Your task to perform on an android device: Open wifi settings Image 0: 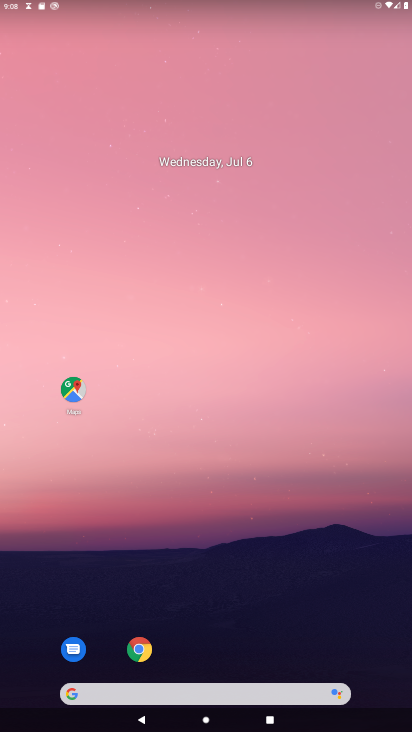
Step 0: click (237, 333)
Your task to perform on an android device: Open wifi settings Image 1: 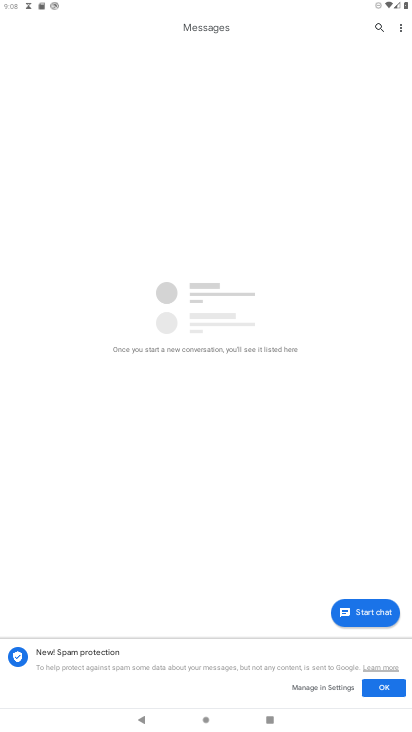
Step 1: drag from (332, 646) to (243, 260)
Your task to perform on an android device: Open wifi settings Image 2: 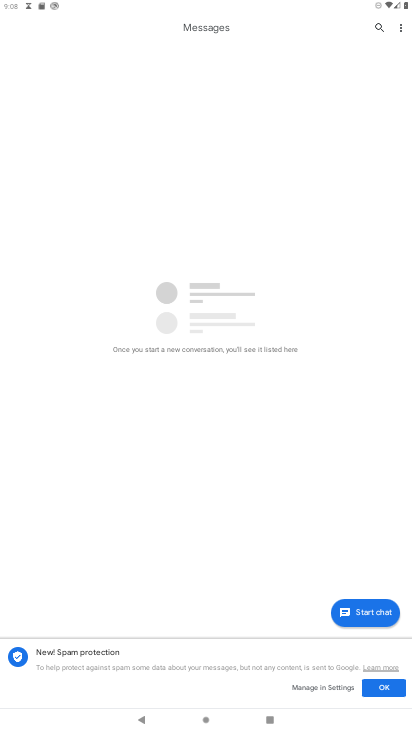
Step 2: press back button
Your task to perform on an android device: Open wifi settings Image 3: 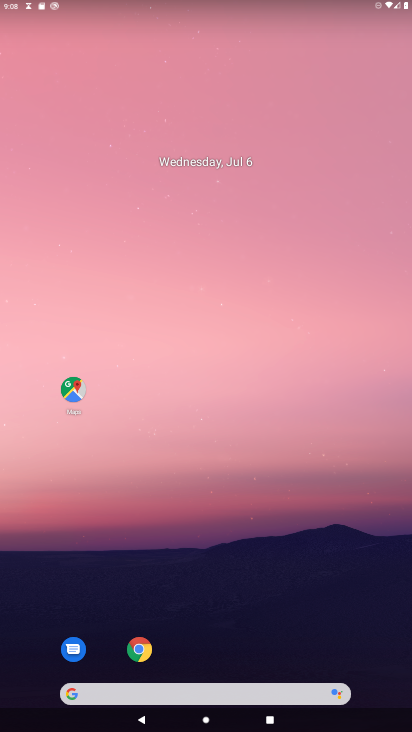
Step 3: drag from (252, 675) to (151, 187)
Your task to perform on an android device: Open wifi settings Image 4: 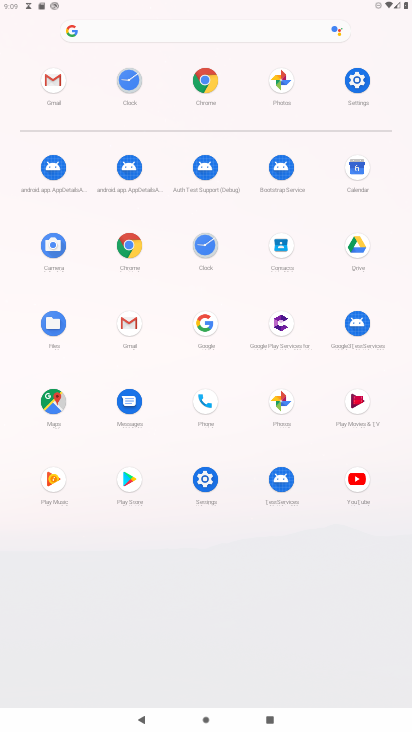
Step 4: click (367, 87)
Your task to perform on an android device: Open wifi settings Image 5: 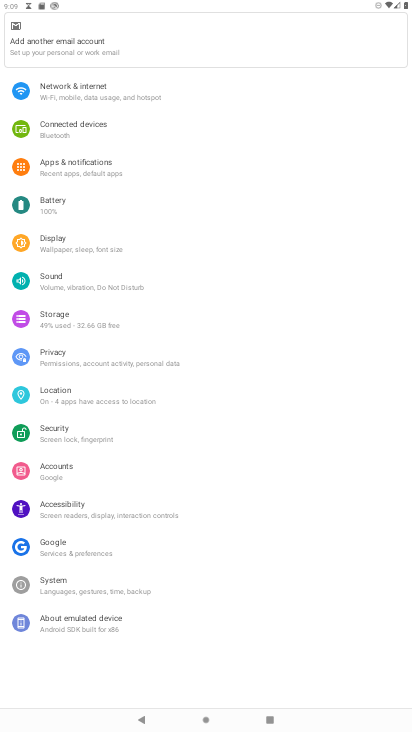
Step 5: click (100, 91)
Your task to perform on an android device: Open wifi settings Image 6: 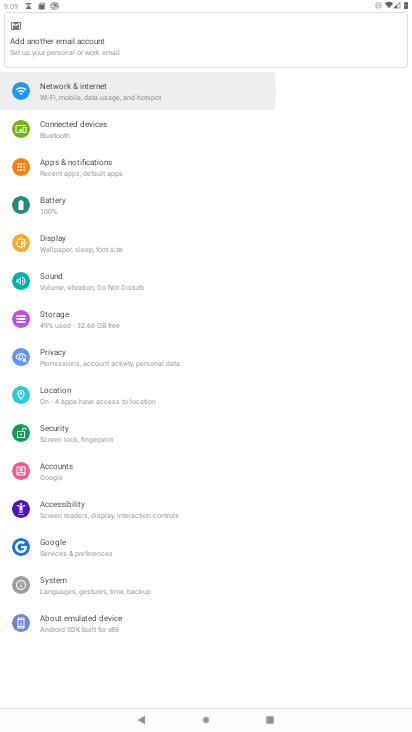
Step 6: click (104, 88)
Your task to perform on an android device: Open wifi settings Image 7: 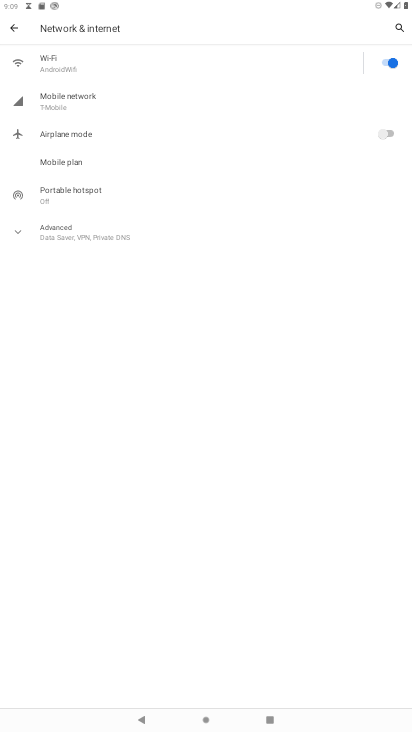
Step 7: task complete